Your task to perform on an android device: Find coffee shops on Maps Image 0: 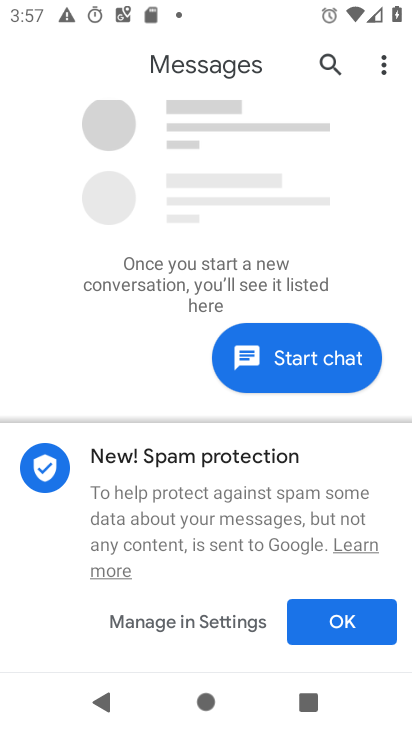
Step 0: press home button
Your task to perform on an android device: Find coffee shops on Maps Image 1: 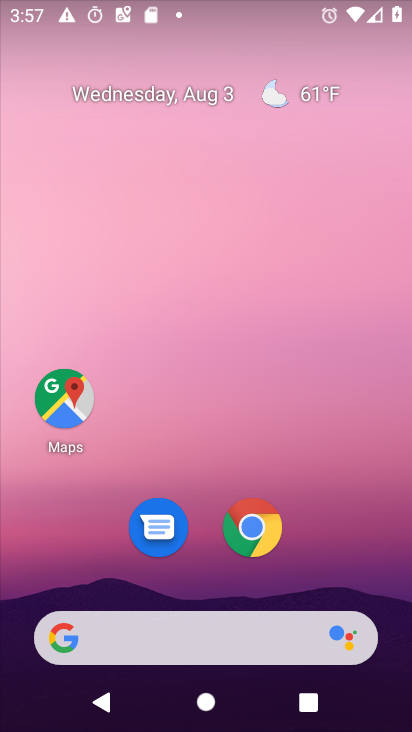
Step 1: drag from (343, 501) to (379, 52)
Your task to perform on an android device: Find coffee shops on Maps Image 2: 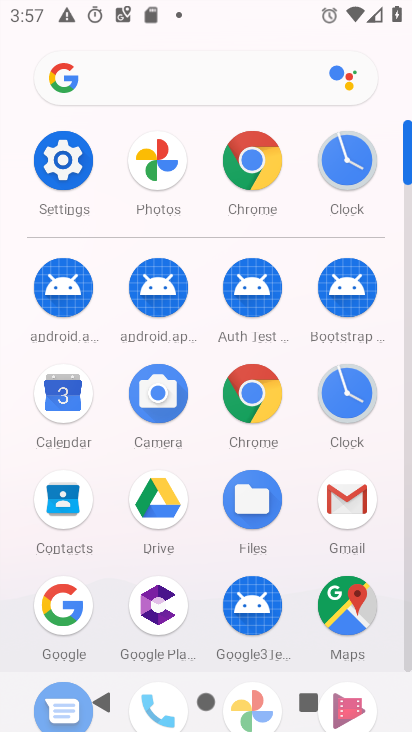
Step 2: click (348, 611)
Your task to perform on an android device: Find coffee shops on Maps Image 3: 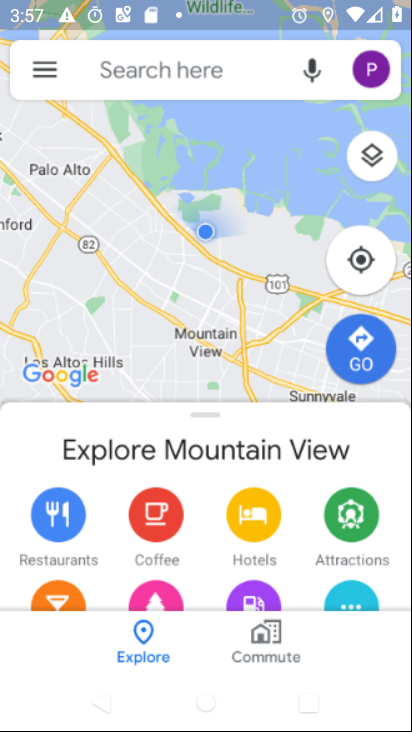
Step 3: click (160, 71)
Your task to perform on an android device: Find coffee shops on Maps Image 4: 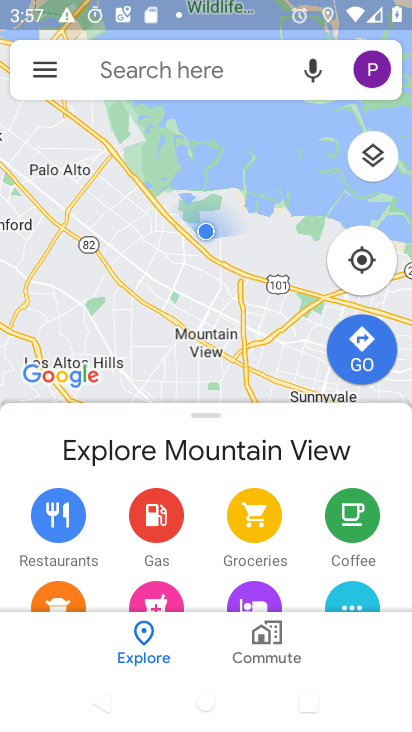
Step 4: click (172, 64)
Your task to perform on an android device: Find coffee shops on Maps Image 5: 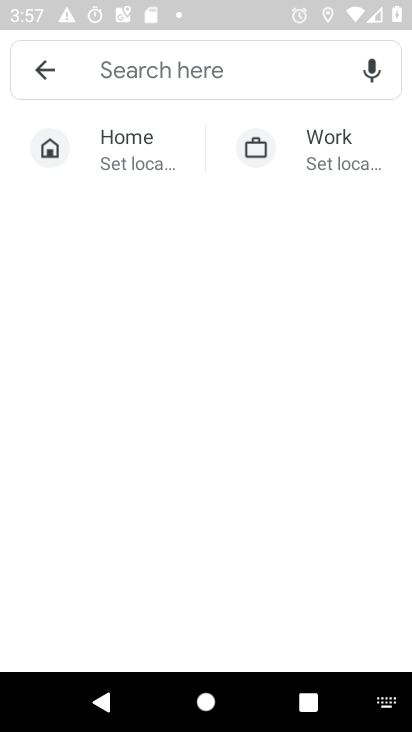
Step 5: type "coffee shops"
Your task to perform on an android device: Find coffee shops on Maps Image 6: 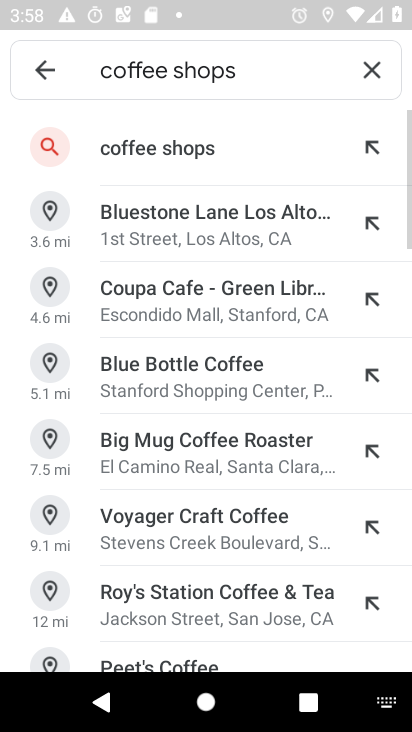
Step 6: click (204, 156)
Your task to perform on an android device: Find coffee shops on Maps Image 7: 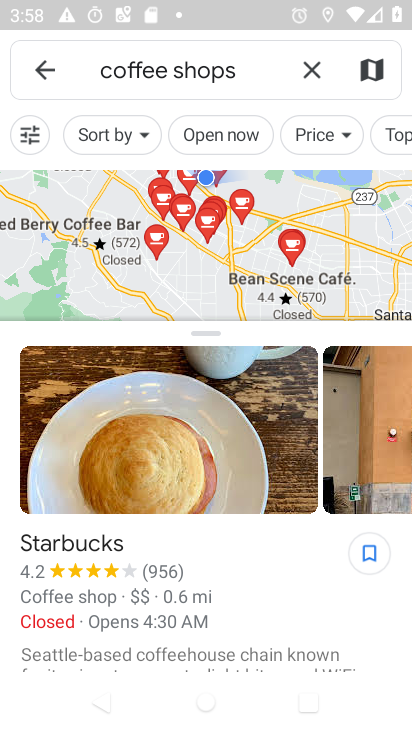
Step 7: task complete